Your task to perform on an android device: stop showing notifications on the lock screen Image 0: 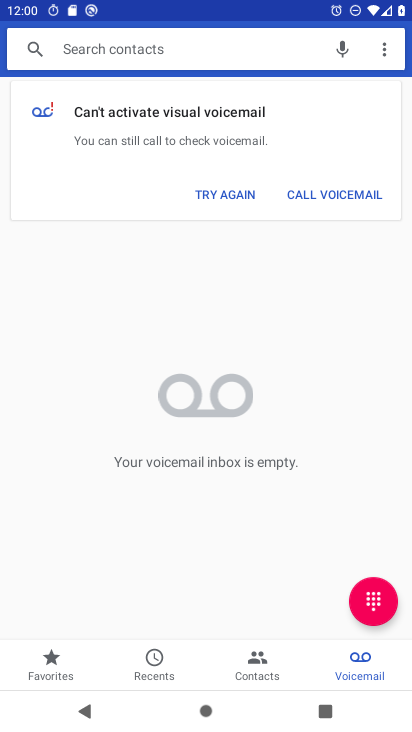
Step 0: press home button
Your task to perform on an android device: stop showing notifications on the lock screen Image 1: 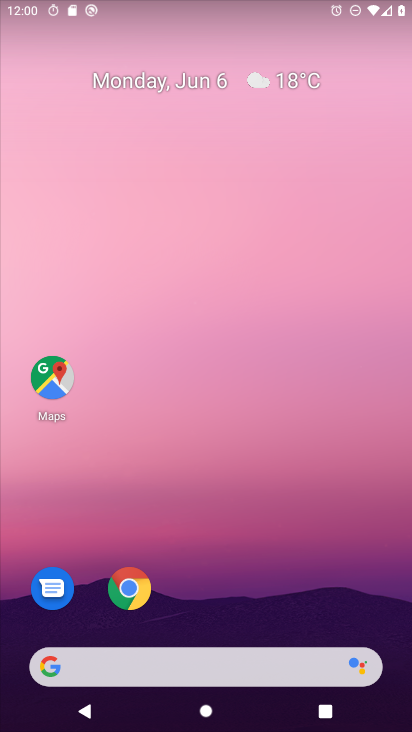
Step 1: drag from (330, 578) to (345, 296)
Your task to perform on an android device: stop showing notifications on the lock screen Image 2: 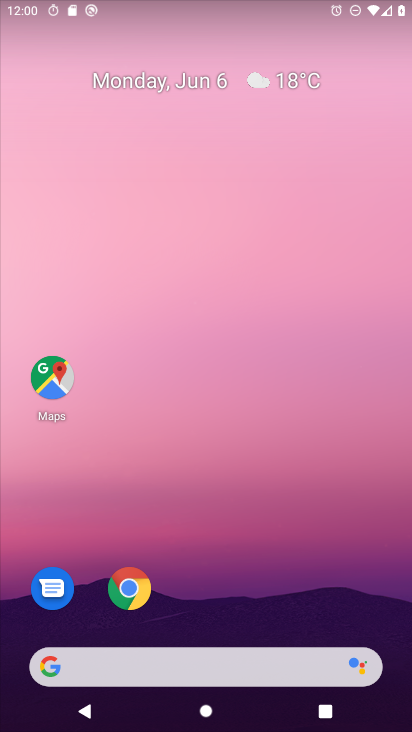
Step 2: drag from (320, 602) to (339, 152)
Your task to perform on an android device: stop showing notifications on the lock screen Image 3: 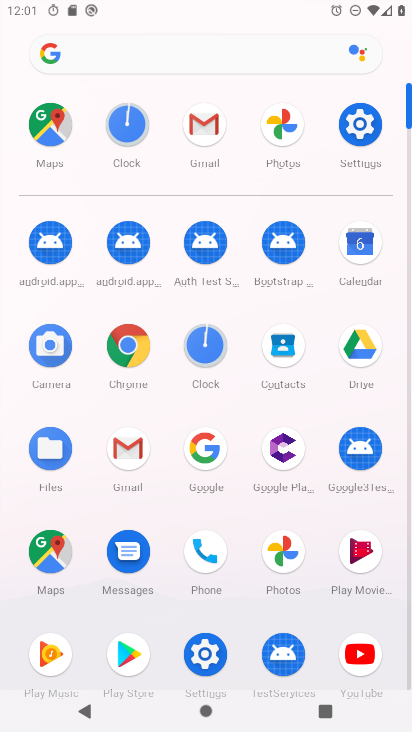
Step 3: click (368, 139)
Your task to perform on an android device: stop showing notifications on the lock screen Image 4: 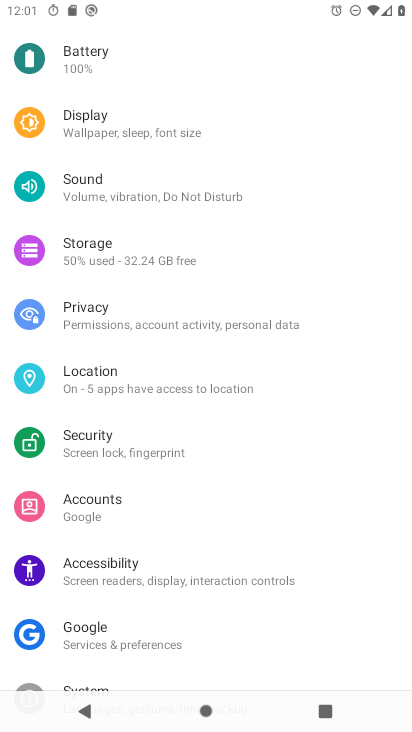
Step 4: drag from (309, 484) to (315, 305)
Your task to perform on an android device: stop showing notifications on the lock screen Image 5: 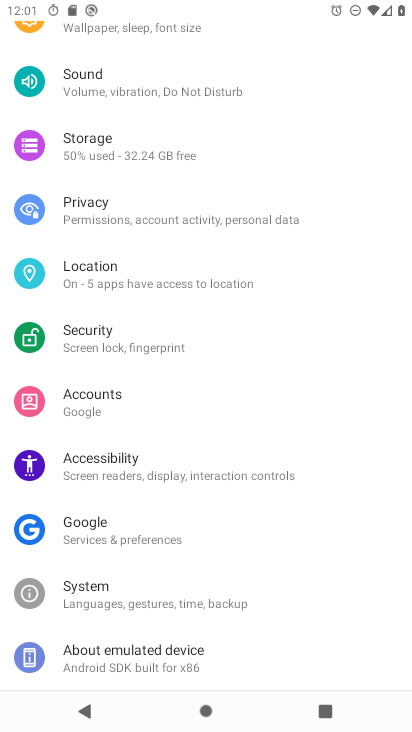
Step 5: drag from (307, 557) to (322, 343)
Your task to perform on an android device: stop showing notifications on the lock screen Image 6: 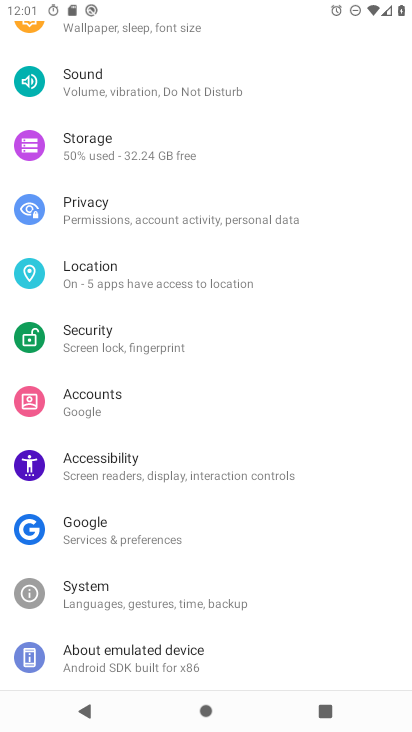
Step 6: drag from (307, 551) to (325, 322)
Your task to perform on an android device: stop showing notifications on the lock screen Image 7: 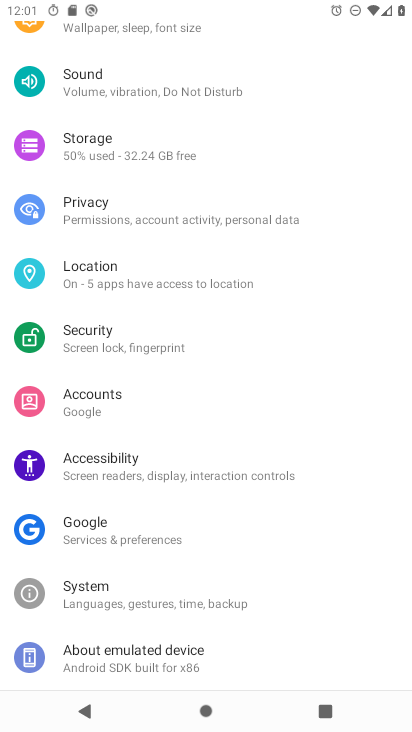
Step 7: drag from (334, 569) to (339, 338)
Your task to perform on an android device: stop showing notifications on the lock screen Image 8: 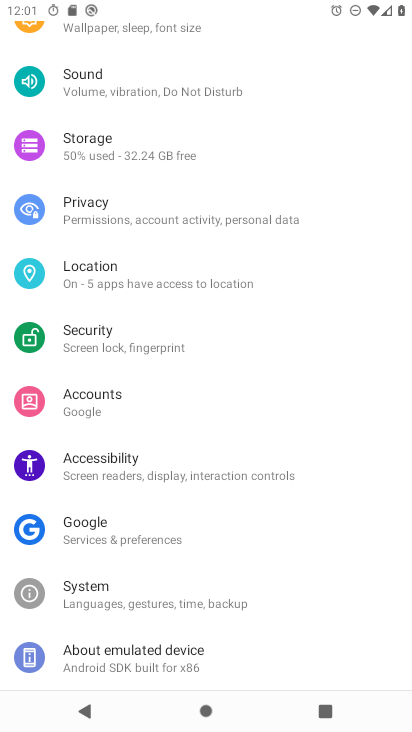
Step 8: drag from (344, 237) to (345, 412)
Your task to perform on an android device: stop showing notifications on the lock screen Image 9: 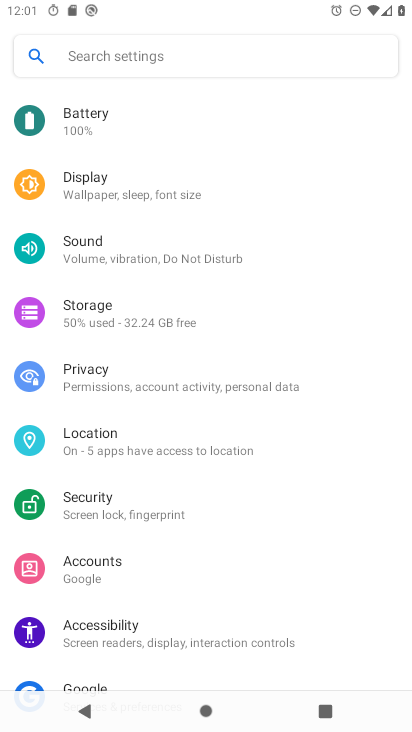
Step 9: drag from (330, 246) to (329, 472)
Your task to perform on an android device: stop showing notifications on the lock screen Image 10: 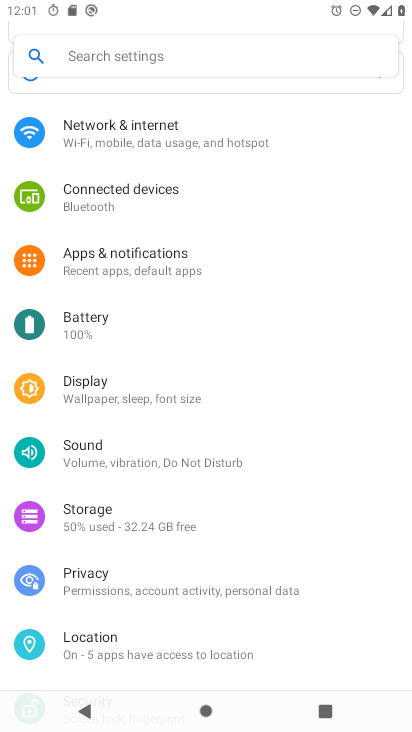
Step 10: drag from (329, 307) to (334, 485)
Your task to perform on an android device: stop showing notifications on the lock screen Image 11: 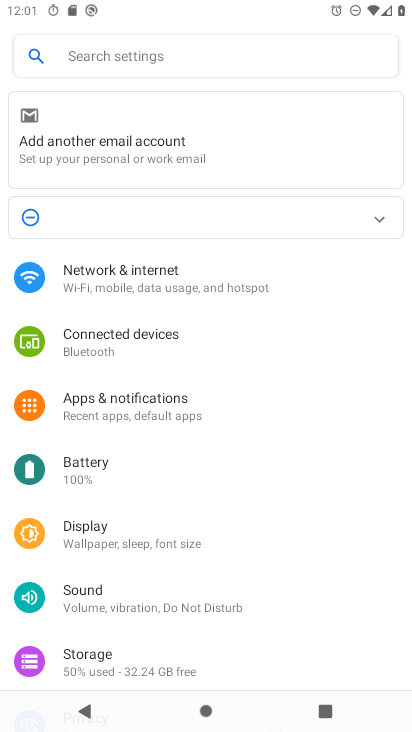
Step 11: click (215, 424)
Your task to perform on an android device: stop showing notifications on the lock screen Image 12: 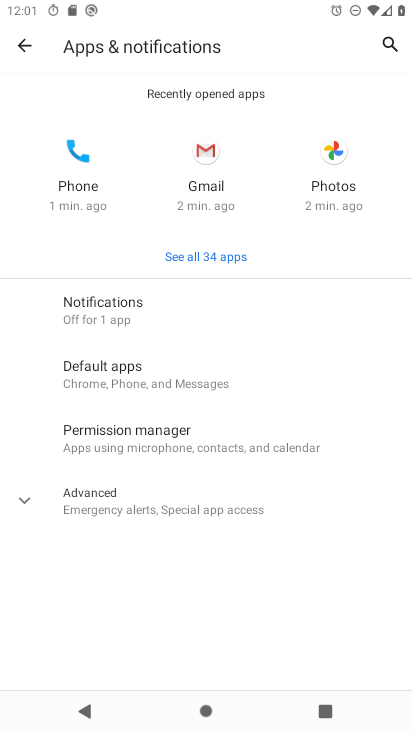
Step 12: click (154, 320)
Your task to perform on an android device: stop showing notifications on the lock screen Image 13: 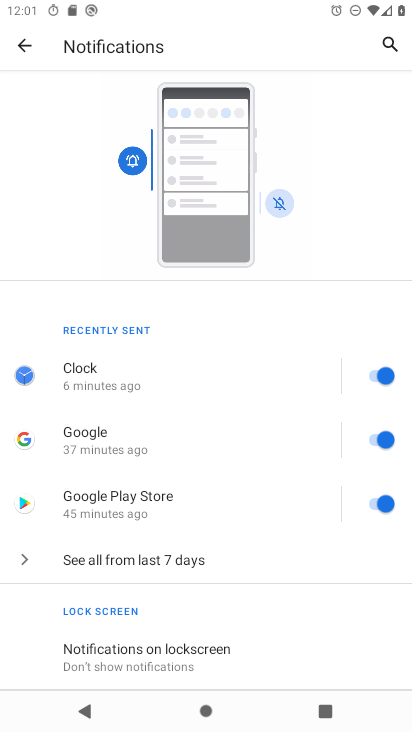
Step 13: drag from (242, 492) to (261, 322)
Your task to perform on an android device: stop showing notifications on the lock screen Image 14: 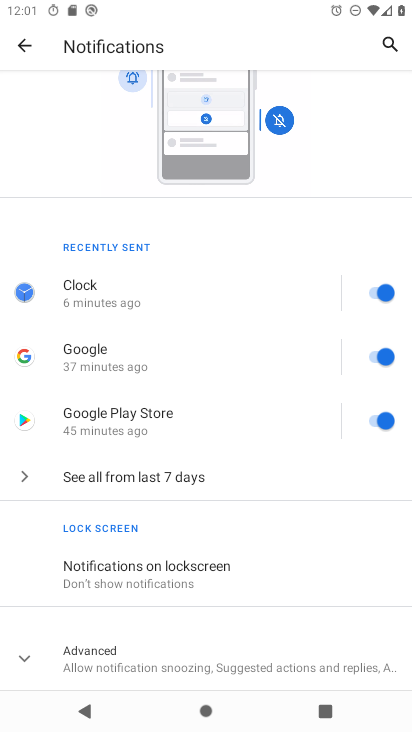
Step 14: click (234, 582)
Your task to perform on an android device: stop showing notifications on the lock screen Image 15: 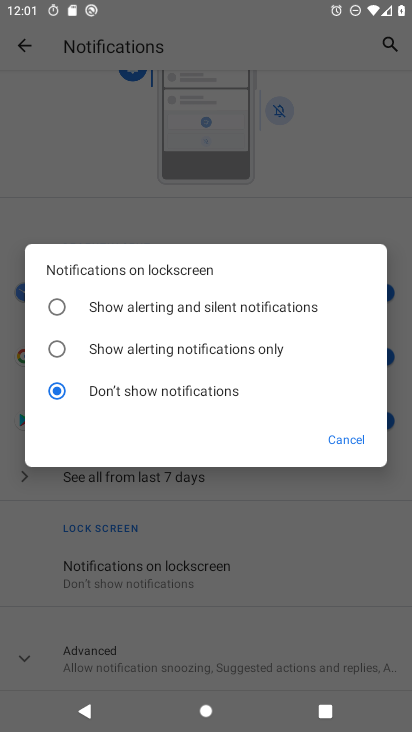
Step 15: task complete